Your task to perform on an android device: toggle notifications settings in the gmail app Image 0: 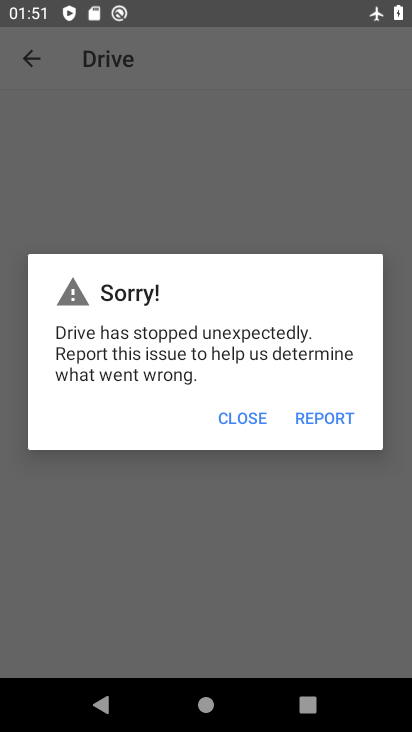
Step 0: press home button
Your task to perform on an android device: toggle notifications settings in the gmail app Image 1: 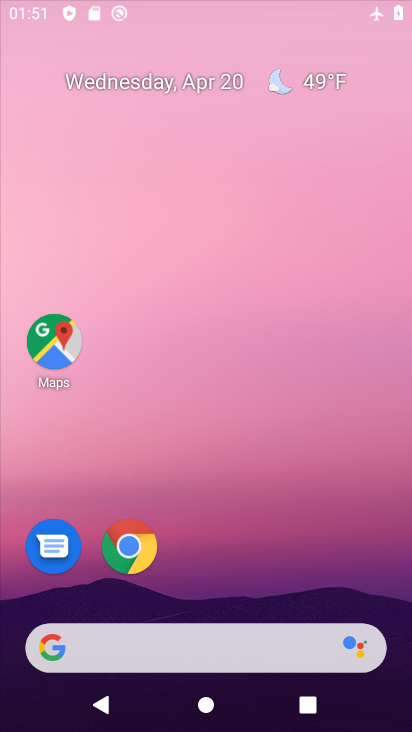
Step 1: drag from (284, 633) to (291, 257)
Your task to perform on an android device: toggle notifications settings in the gmail app Image 2: 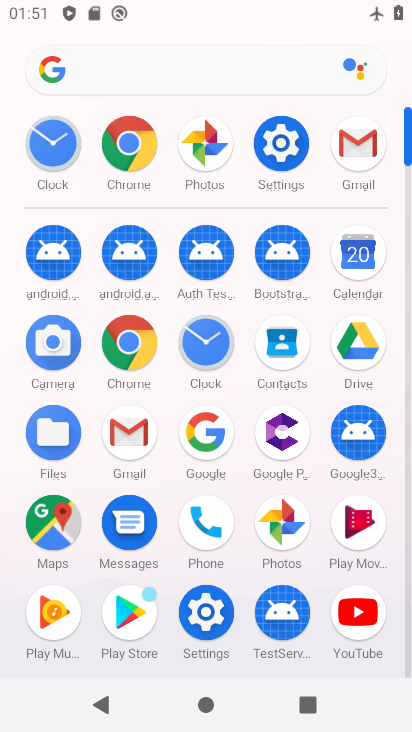
Step 2: click (350, 152)
Your task to perform on an android device: toggle notifications settings in the gmail app Image 3: 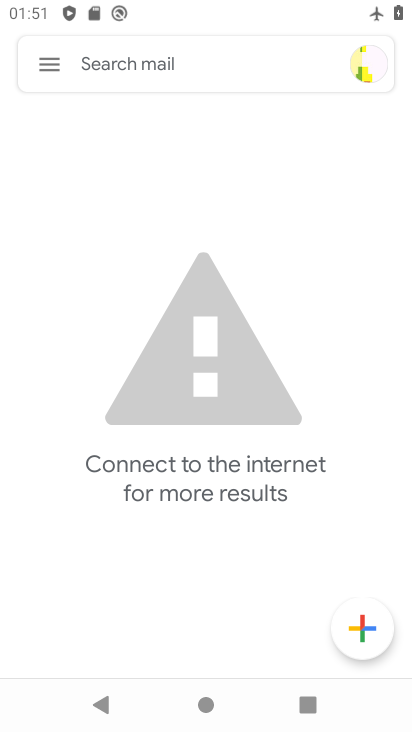
Step 3: click (36, 45)
Your task to perform on an android device: toggle notifications settings in the gmail app Image 4: 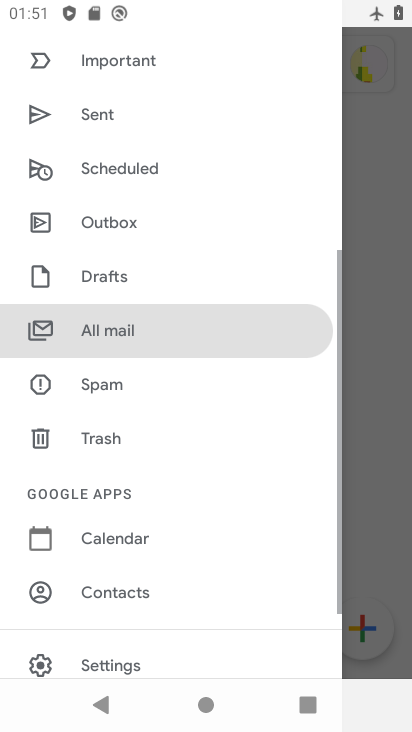
Step 4: drag from (179, 608) to (242, 294)
Your task to perform on an android device: toggle notifications settings in the gmail app Image 5: 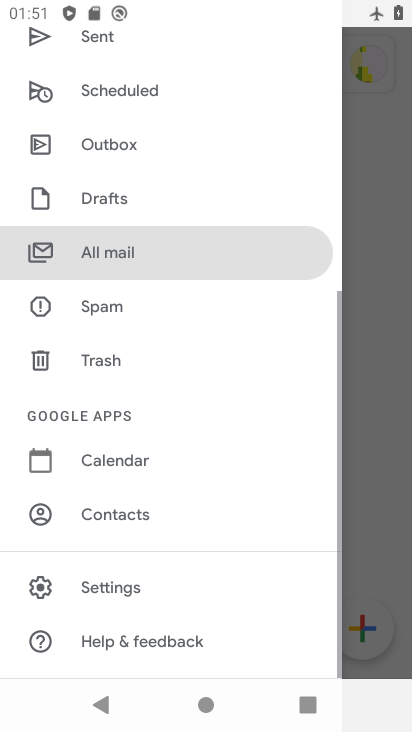
Step 5: click (136, 580)
Your task to perform on an android device: toggle notifications settings in the gmail app Image 6: 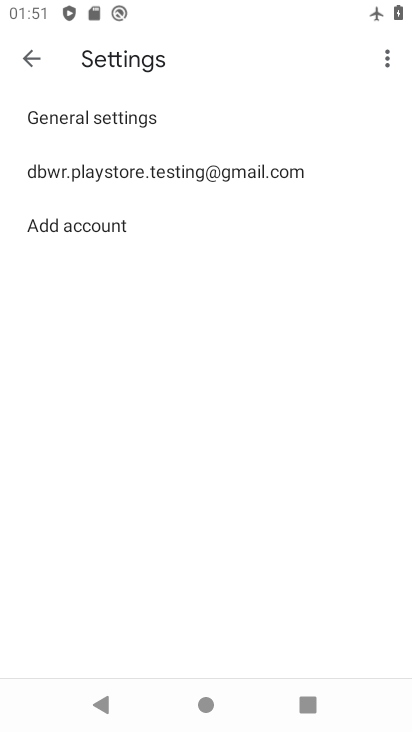
Step 6: click (174, 164)
Your task to perform on an android device: toggle notifications settings in the gmail app Image 7: 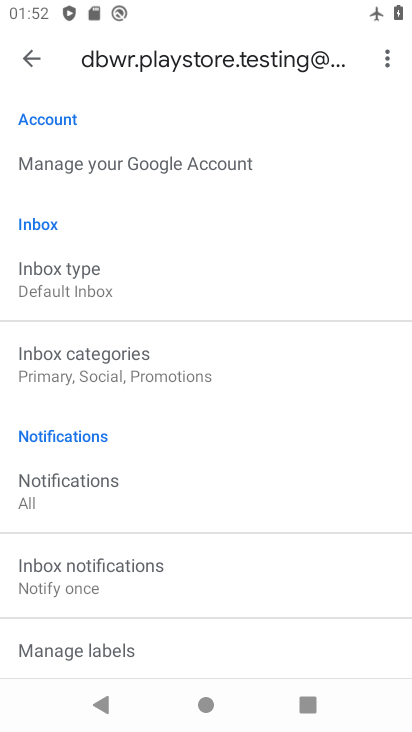
Step 7: click (135, 492)
Your task to perform on an android device: toggle notifications settings in the gmail app Image 8: 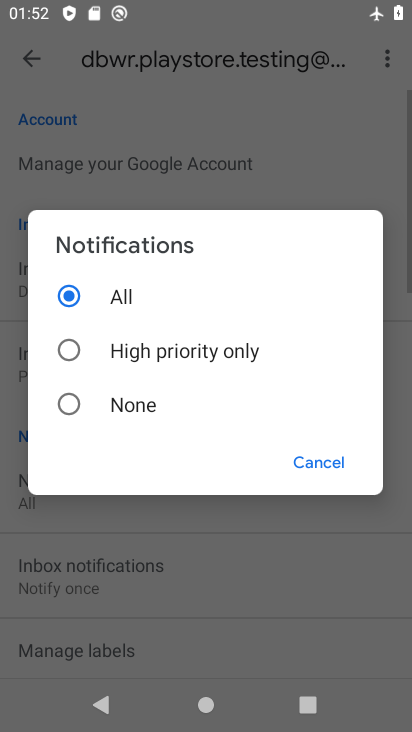
Step 8: click (125, 414)
Your task to perform on an android device: toggle notifications settings in the gmail app Image 9: 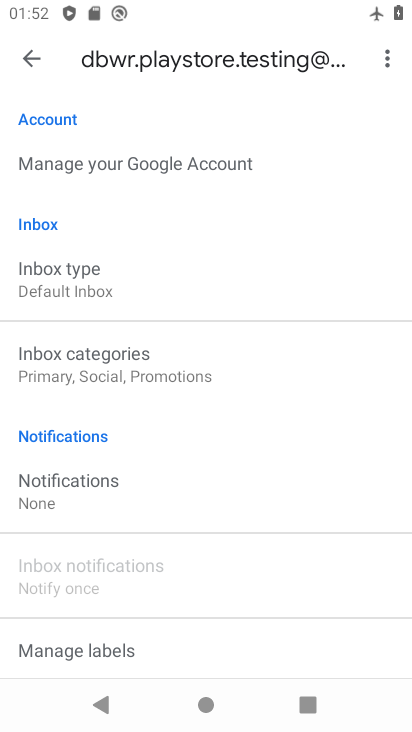
Step 9: task complete